Your task to perform on an android device: move an email to a new category in the gmail app Image 0: 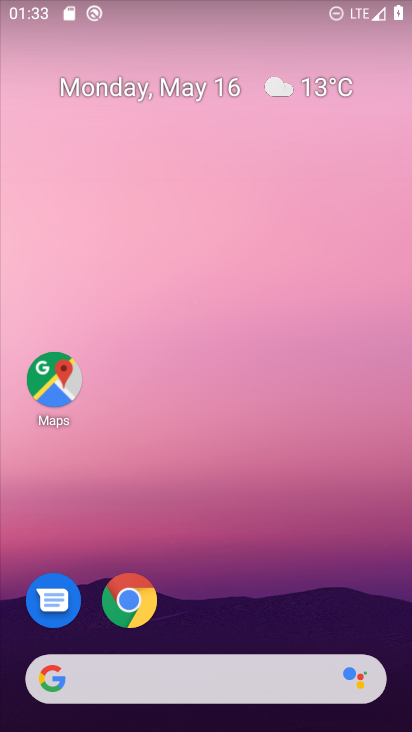
Step 0: drag from (221, 634) to (251, 3)
Your task to perform on an android device: move an email to a new category in the gmail app Image 1: 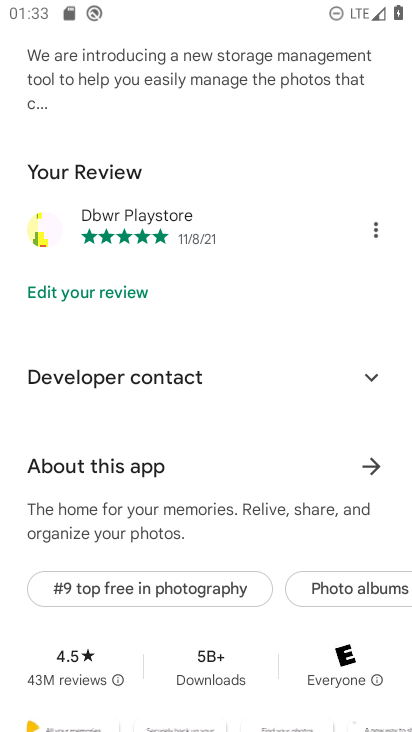
Step 1: press home button
Your task to perform on an android device: move an email to a new category in the gmail app Image 2: 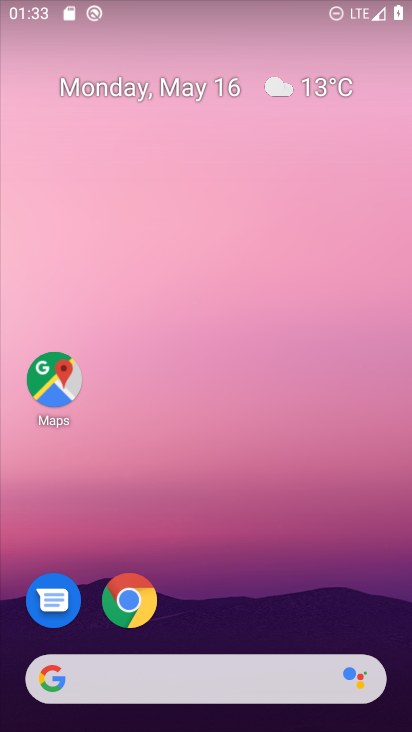
Step 2: drag from (207, 635) to (234, 104)
Your task to perform on an android device: move an email to a new category in the gmail app Image 3: 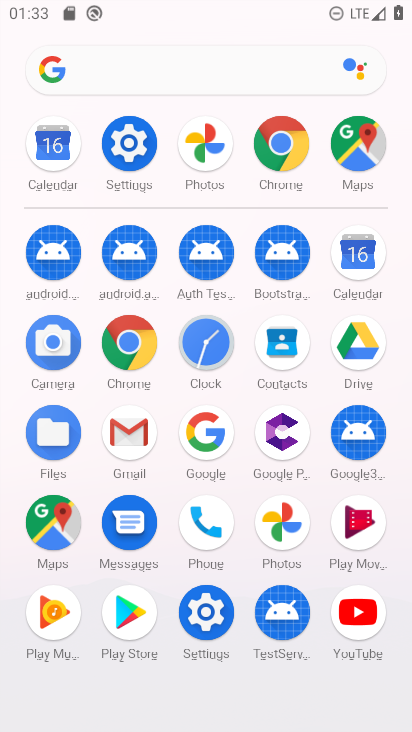
Step 3: click (122, 437)
Your task to perform on an android device: move an email to a new category in the gmail app Image 4: 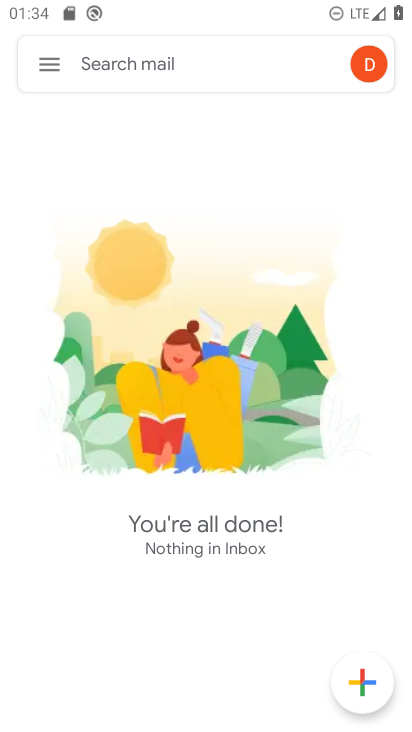
Step 4: click (42, 58)
Your task to perform on an android device: move an email to a new category in the gmail app Image 5: 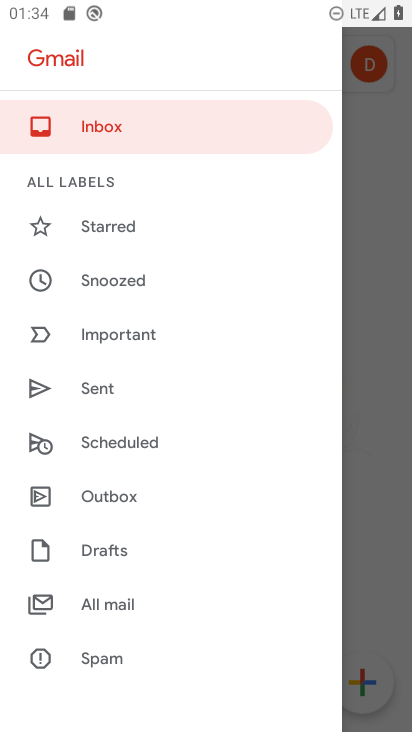
Step 5: click (125, 596)
Your task to perform on an android device: move an email to a new category in the gmail app Image 6: 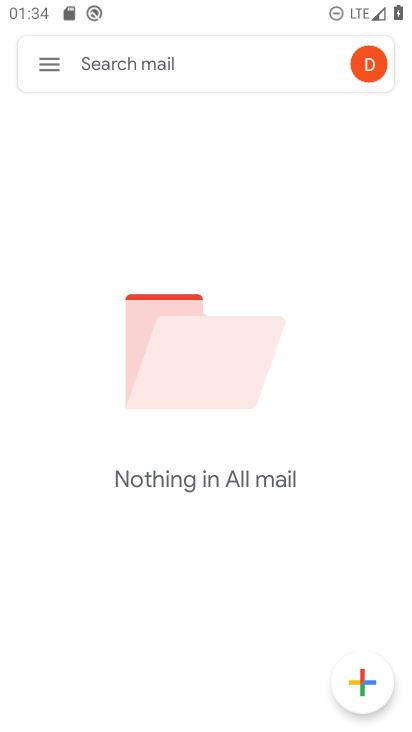
Step 6: task complete